Your task to perform on an android device: Open accessibility settings Image 0: 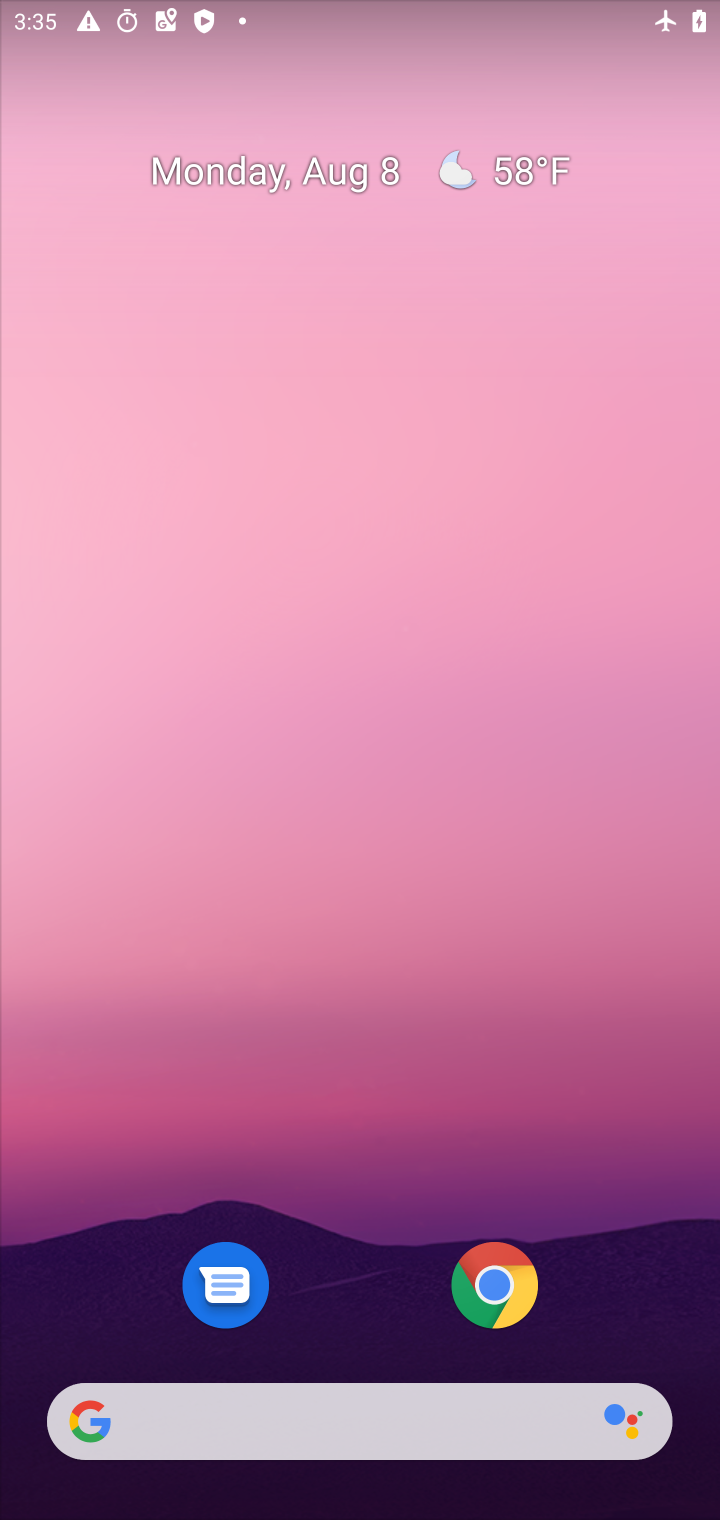
Step 0: click (344, 685)
Your task to perform on an android device: Open accessibility settings Image 1: 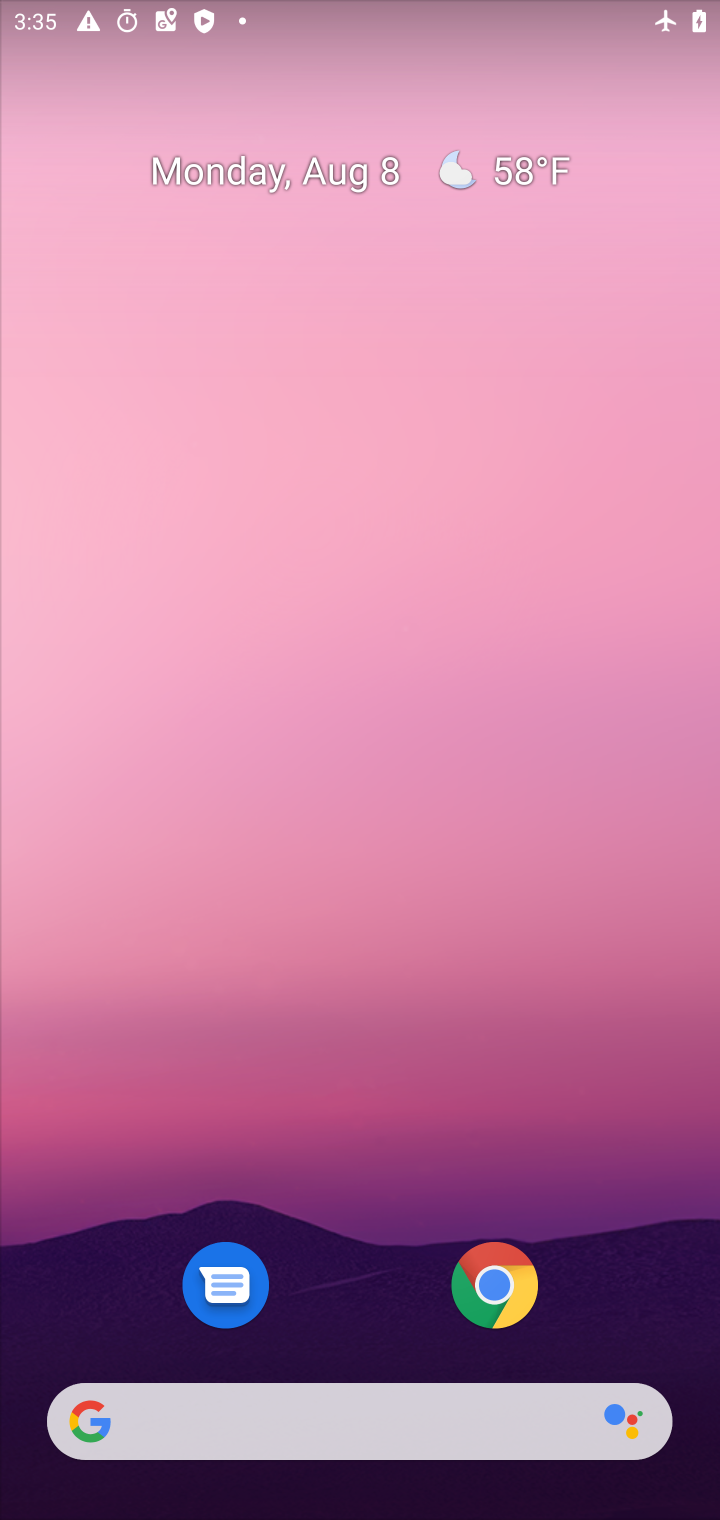
Step 1: drag from (336, 1334) to (449, 207)
Your task to perform on an android device: Open accessibility settings Image 2: 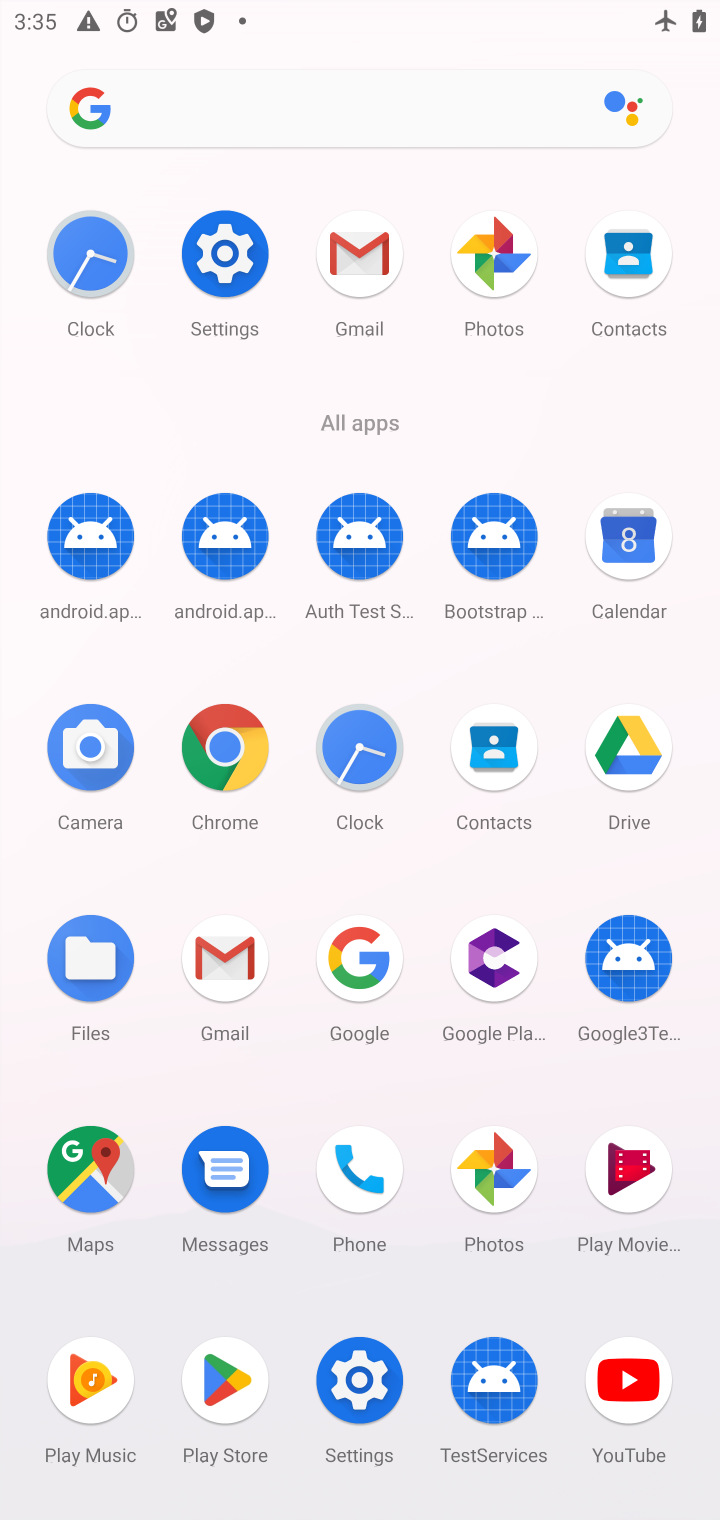
Step 2: click (233, 298)
Your task to perform on an android device: Open accessibility settings Image 3: 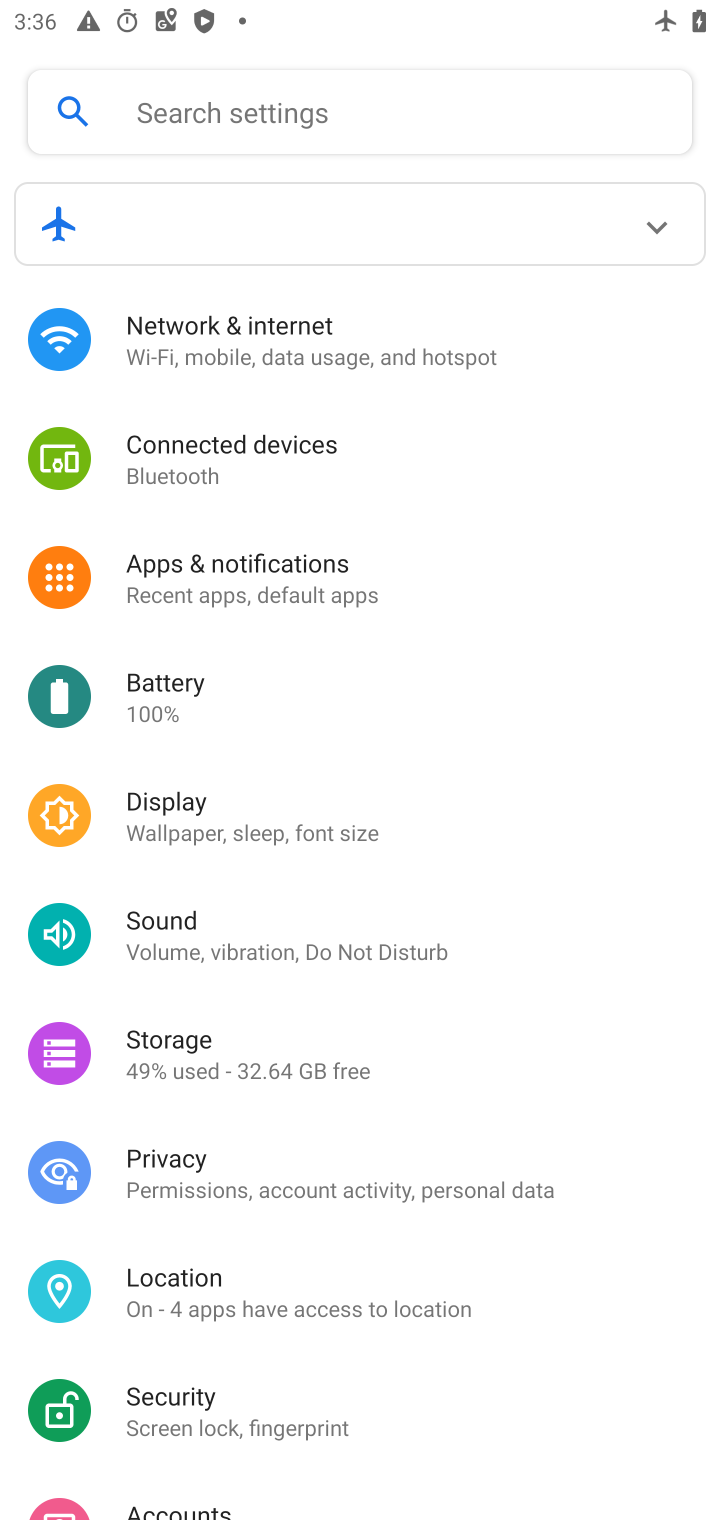
Step 3: drag from (376, 1288) to (490, 216)
Your task to perform on an android device: Open accessibility settings Image 4: 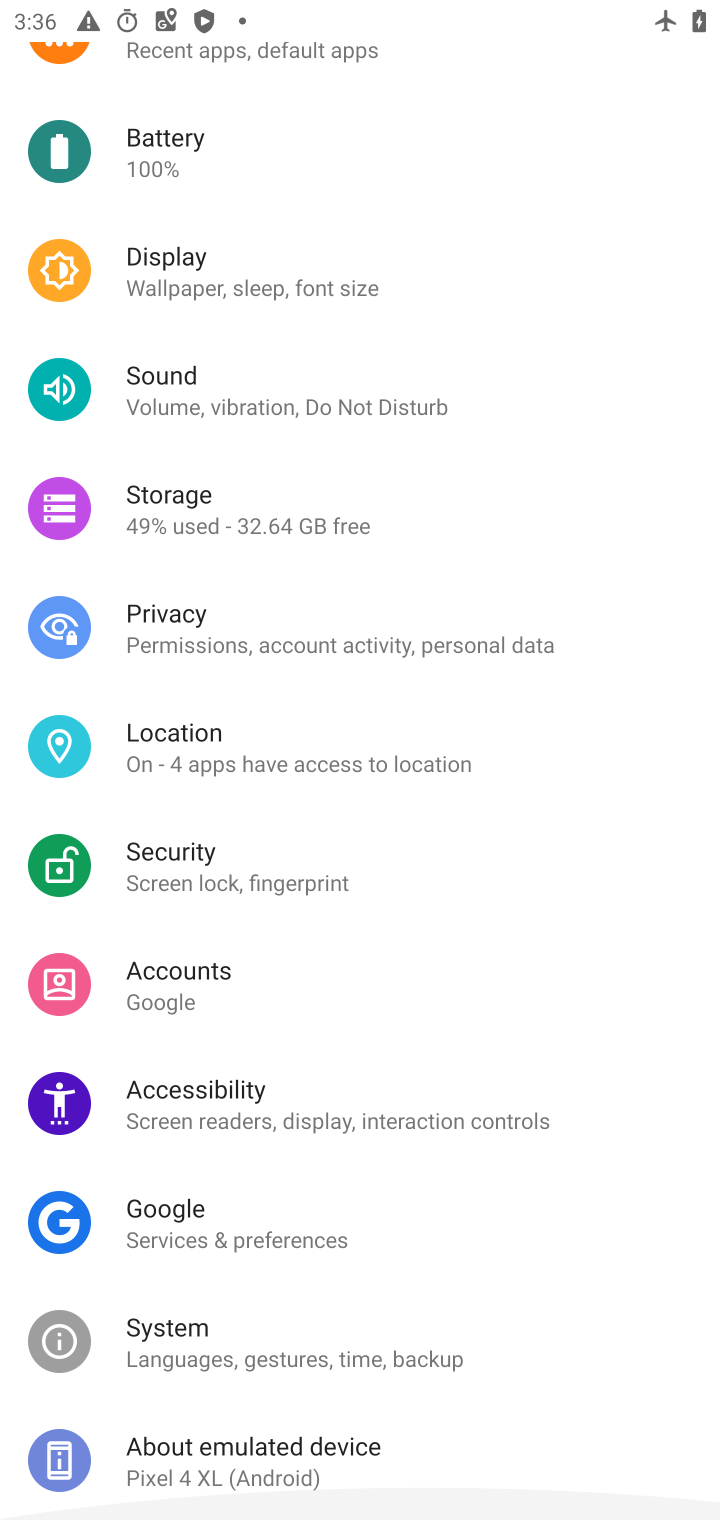
Step 4: click (157, 1248)
Your task to perform on an android device: Open accessibility settings Image 5: 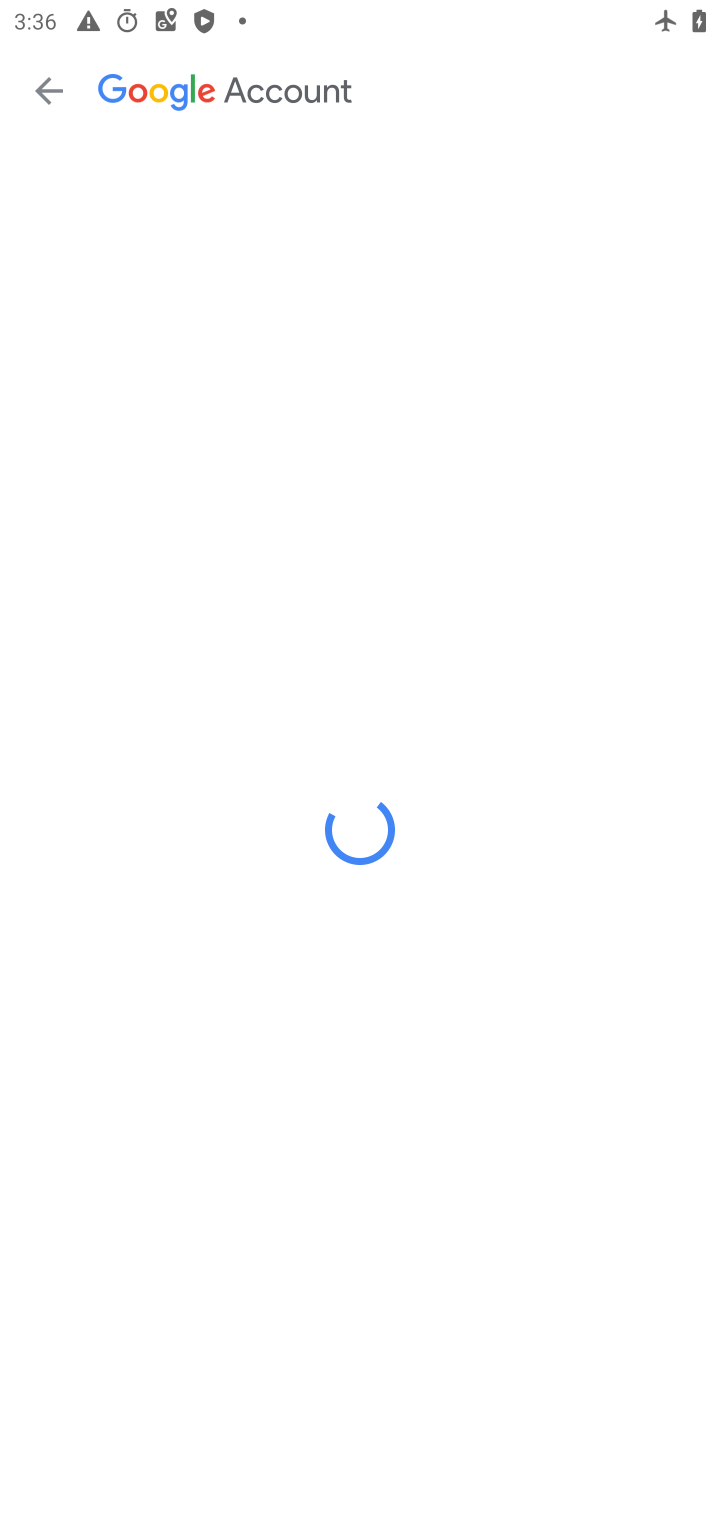
Step 5: click (45, 91)
Your task to perform on an android device: Open accessibility settings Image 6: 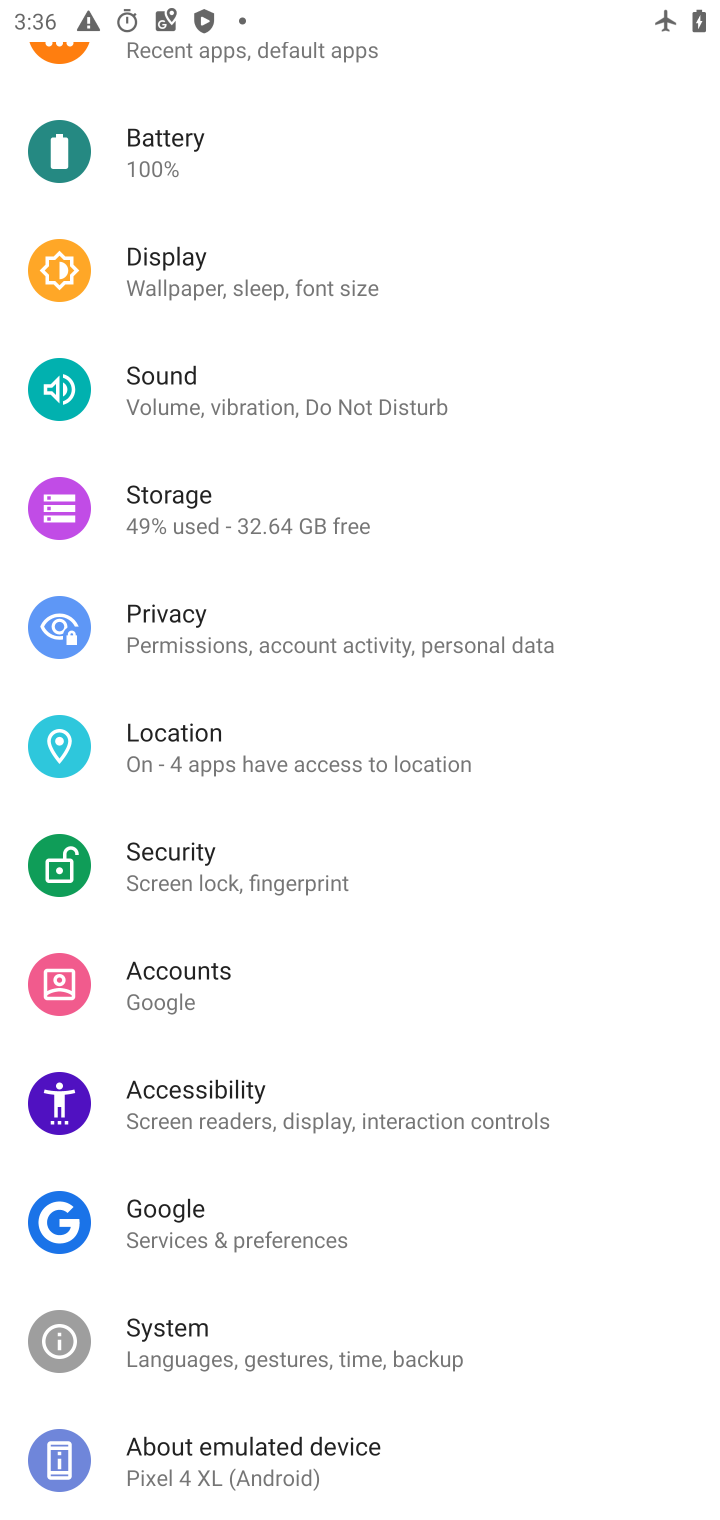
Step 6: click (255, 1097)
Your task to perform on an android device: Open accessibility settings Image 7: 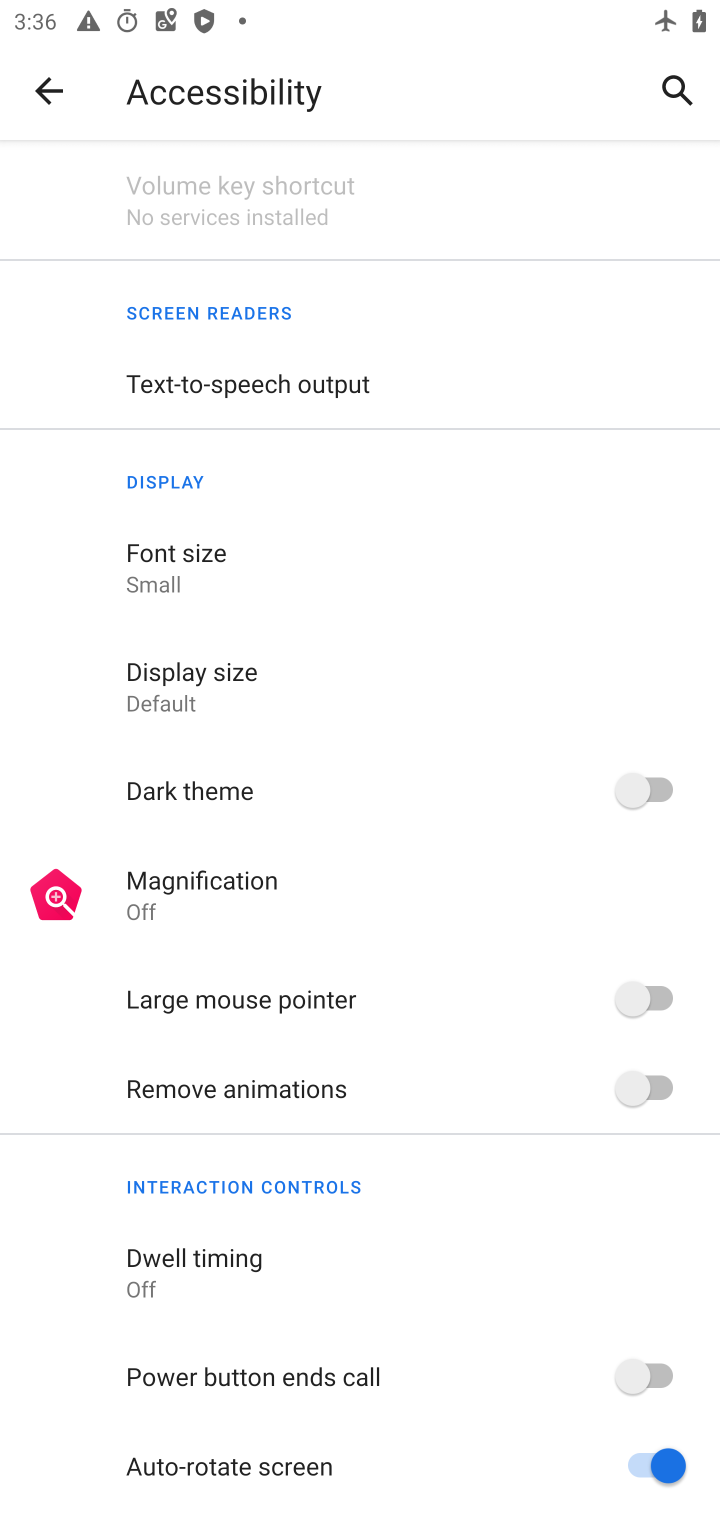
Step 7: task complete